Your task to perform on an android device: turn on the 24-hour format for clock Image 0: 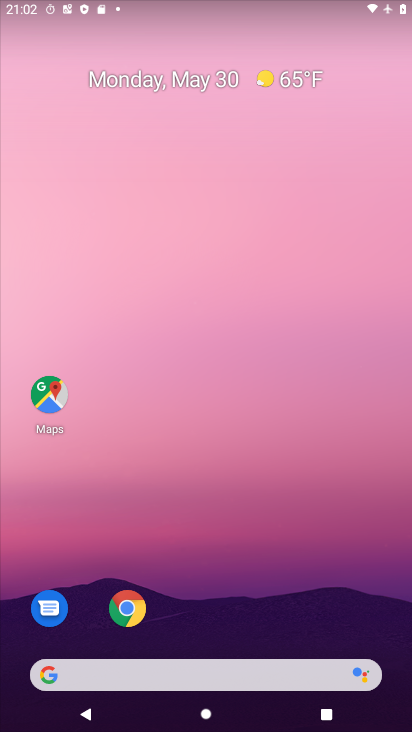
Step 0: drag from (212, 589) to (228, 158)
Your task to perform on an android device: turn on the 24-hour format for clock Image 1: 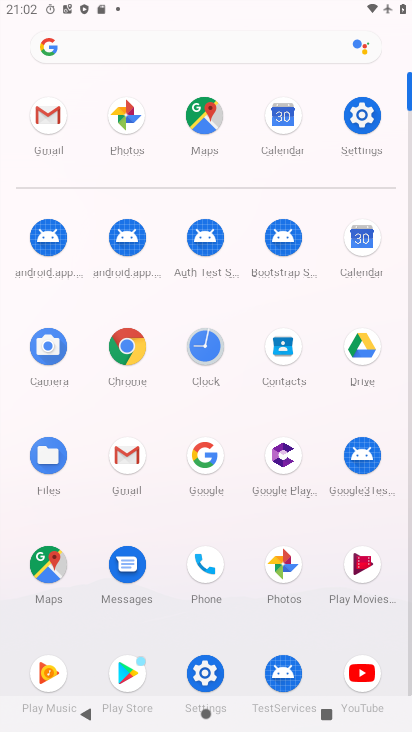
Step 1: click (194, 355)
Your task to perform on an android device: turn on the 24-hour format for clock Image 2: 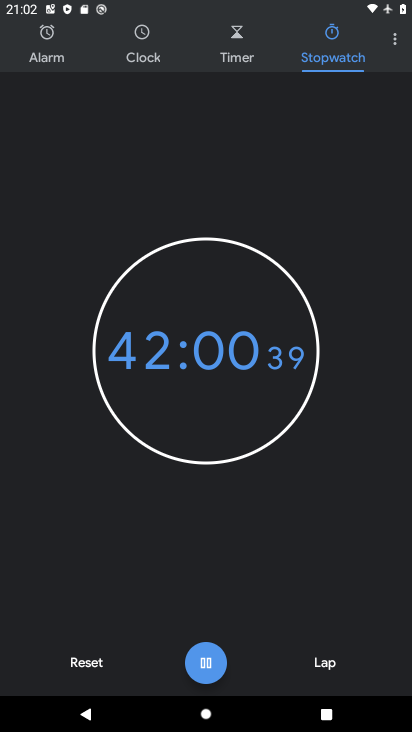
Step 2: click (392, 35)
Your task to perform on an android device: turn on the 24-hour format for clock Image 3: 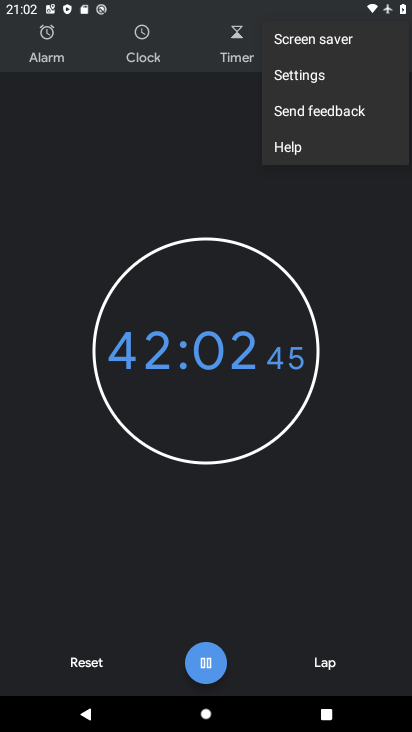
Step 3: click (279, 71)
Your task to perform on an android device: turn on the 24-hour format for clock Image 4: 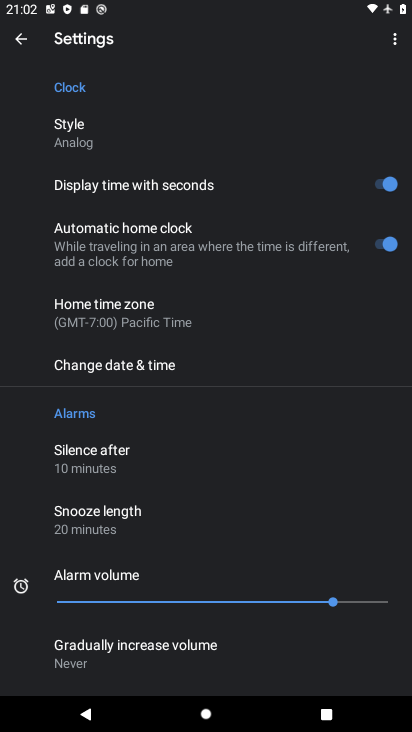
Step 4: click (209, 359)
Your task to perform on an android device: turn on the 24-hour format for clock Image 5: 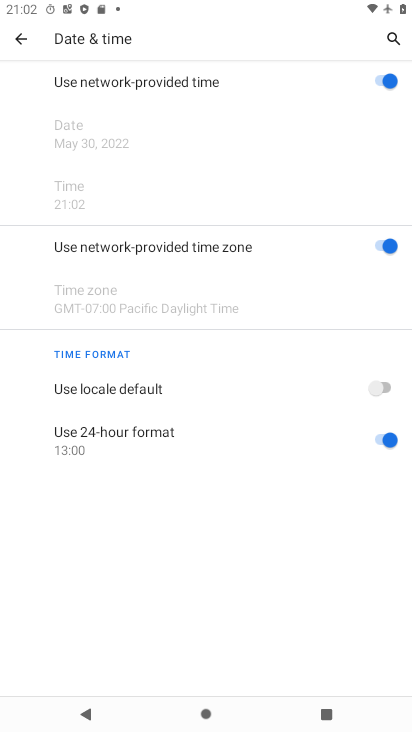
Step 5: task complete